Your task to perform on an android device: open chrome privacy settings Image 0: 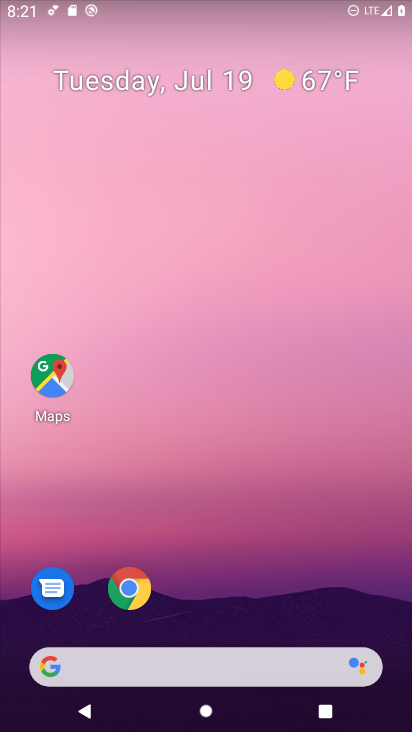
Step 0: drag from (343, 610) to (360, 100)
Your task to perform on an android device: open chrome privacy settings Image 1: 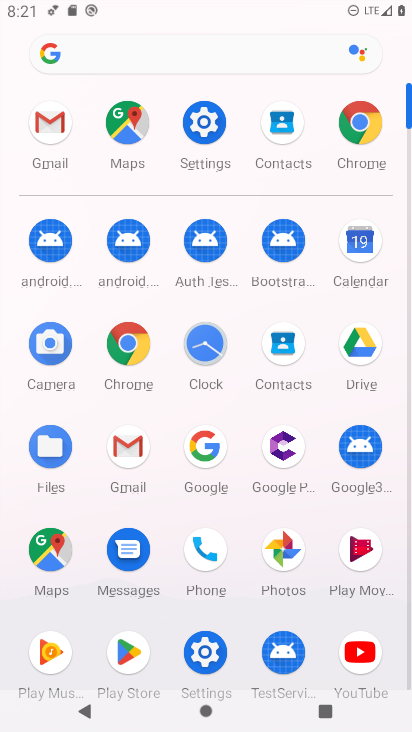
Step 1: click (363, 131)
Your task to perform on an android device: open chrome privacy settings Image 2: 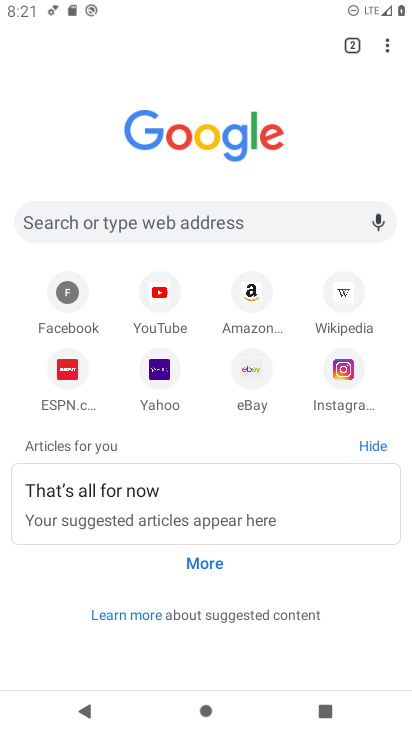
Step 2: click (385, 47)
Your task to perform on an android device: open chrome privacy settings Image 3: 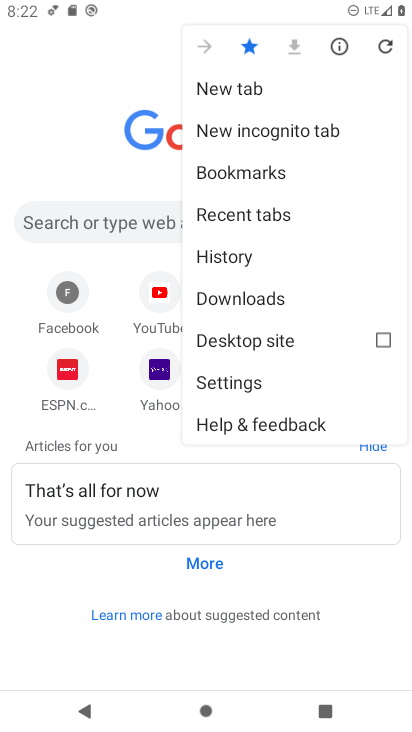
Step 3: click (251, 389)
Your task to perform on an android device: open chrome privacy settings Image 4: 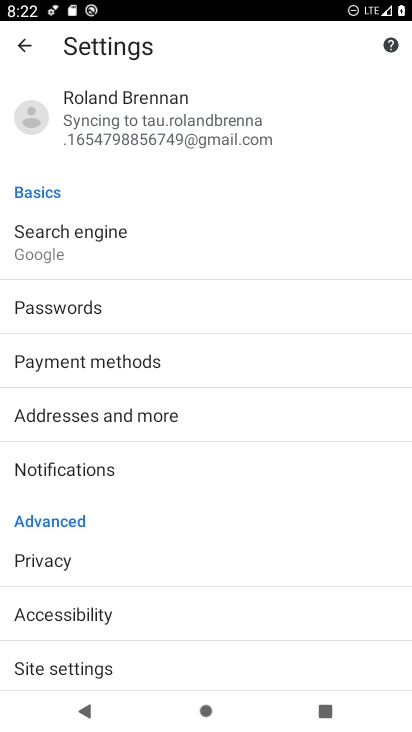
Step 4: click (151, 561)
Your task to perform on an android device: open chrome privacy settings Image 5: 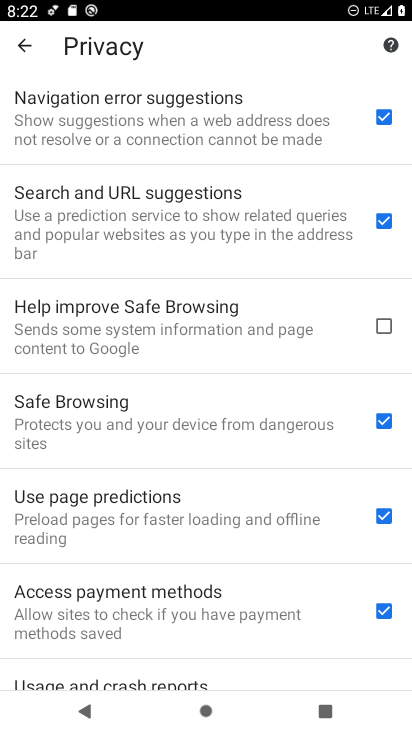
Step 5: task complete